Your task to perform on an android device: Go to ESPN.com Image 0: 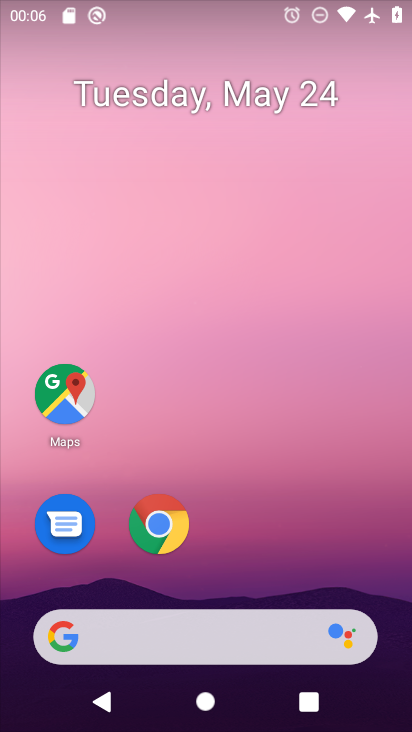
Step 0: click (157, 512)
Your task to perform on an android device: Go to ESPN.com Image 1: 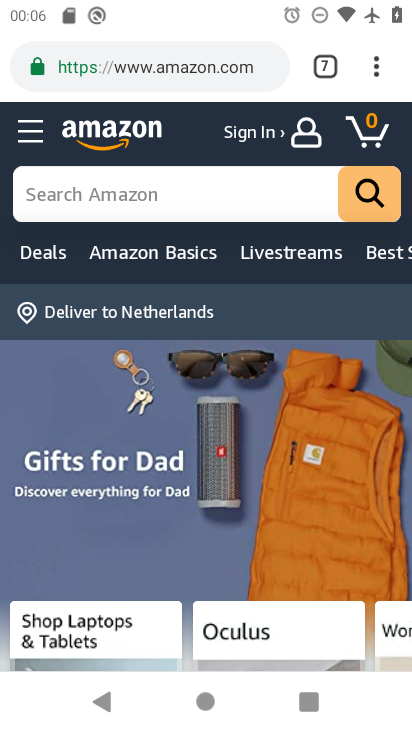
Step 1: click (315, 67)
Your task to perform on an android device: Go to ESPN.com Image 2: 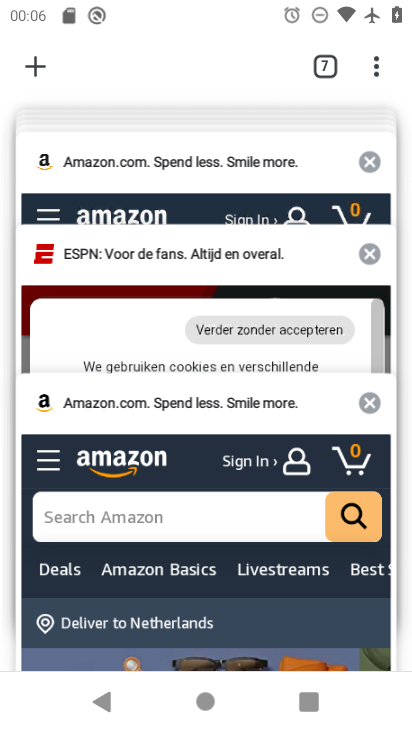
Step 2: click (180, 273)
Your task to perform on an android device: Go to ESPN.com Image 3: 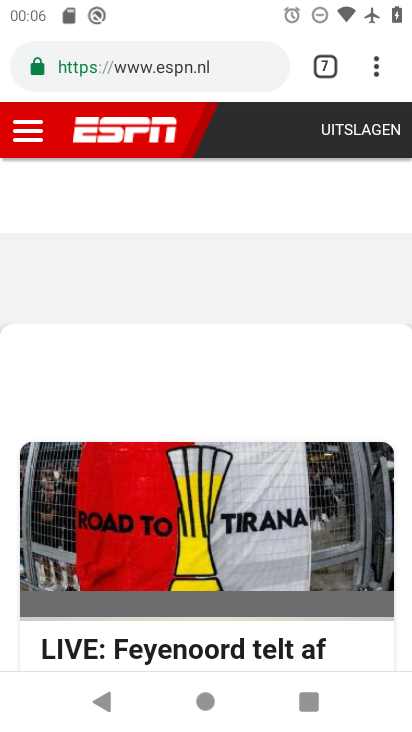
Step 3: task complete